Your task to perform on an android device: Toggle the flashlight Image 0: 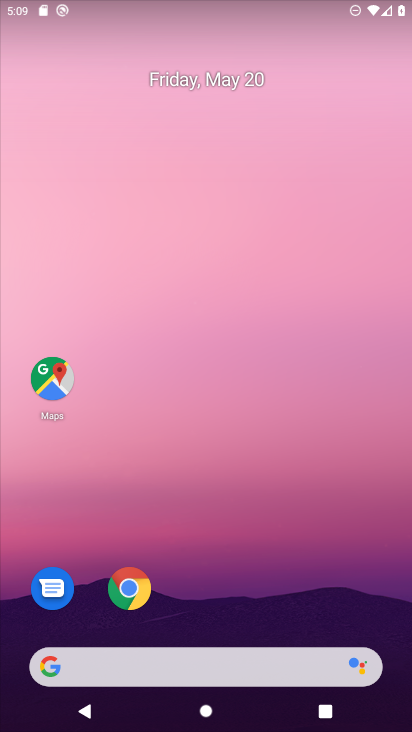
Step 0: drag from (195, 580) to (275, 184)
Your task to perform on an android device: Toggle the flashlight Image 1: 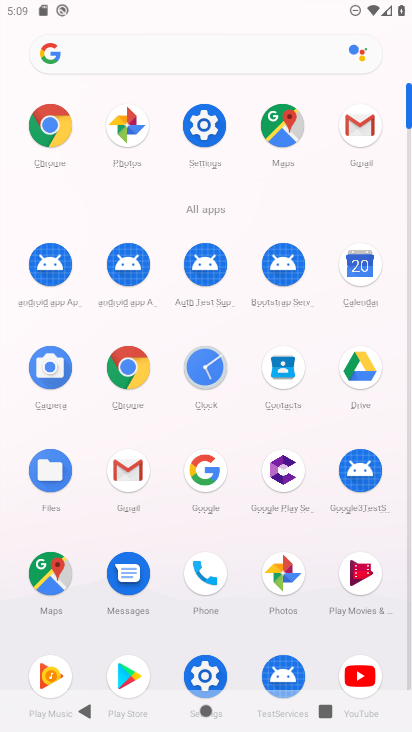
Step 1: task complete